Your task to perform on an android device: turn on airplane mode Image 0: 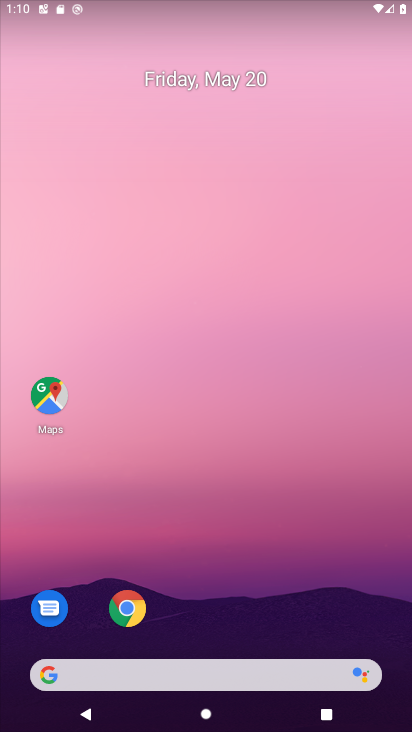
Step 0: drag from (246, 557) to (284, 150)
Your task to perform on an android device: turn on airplane mode Image 1: 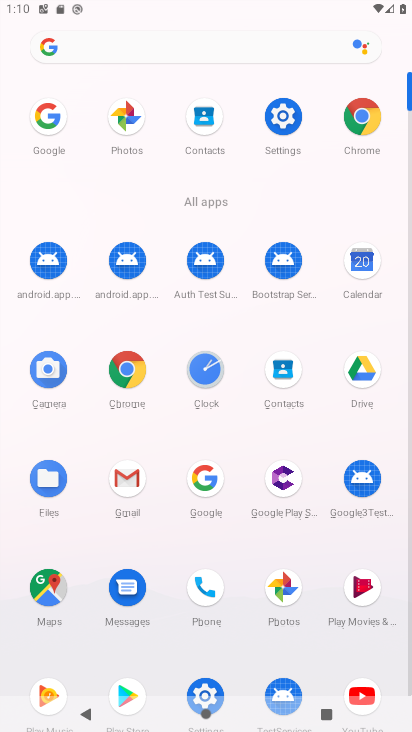
Step 1: click (278, 131)
Your task to perform on an android device: turn on airplane mode Image 2: 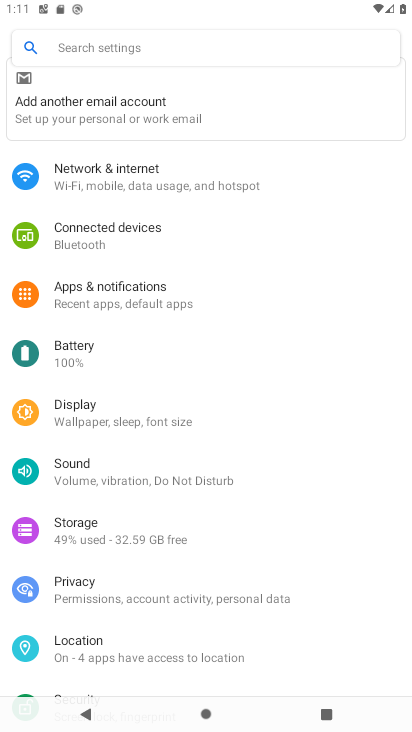
Step 2: click (230, 198)
Your task to perform on an android device: turn on airplane mode Image 3: 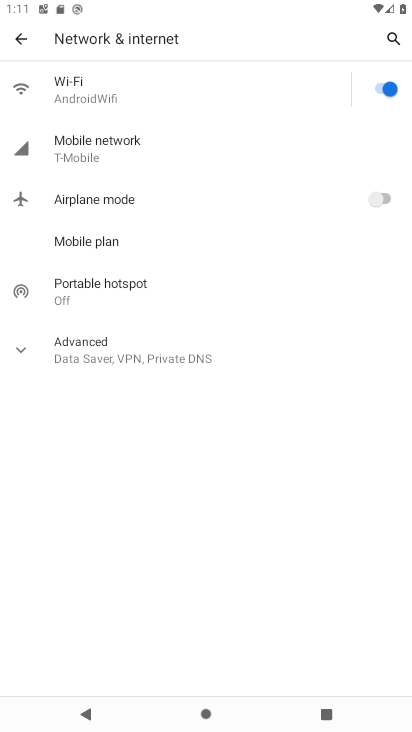
Step 3: click (384, 196)
Your task to perform on an android device: turn on airplane mode Image 4: 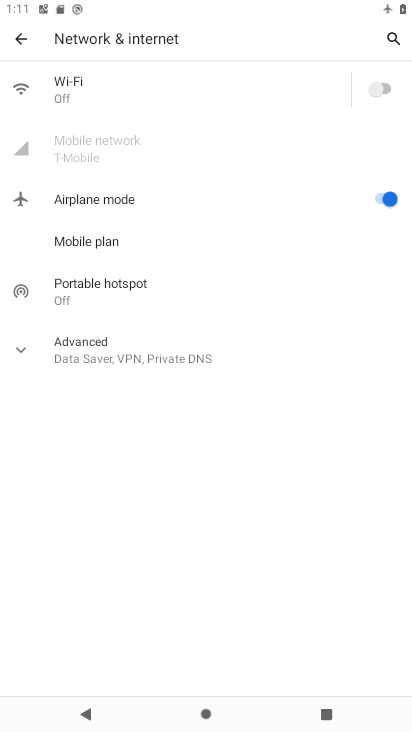
Step 4: task complete